Your task to perform on an android device: Go to Android settings Image 0: 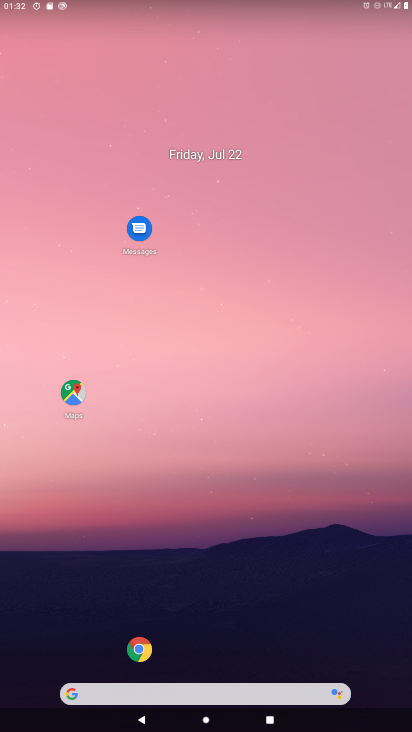
Step 0: drag from (43, 694) to (256, 103)
Your task to perform on an android device: Go to Android settings Image 1: 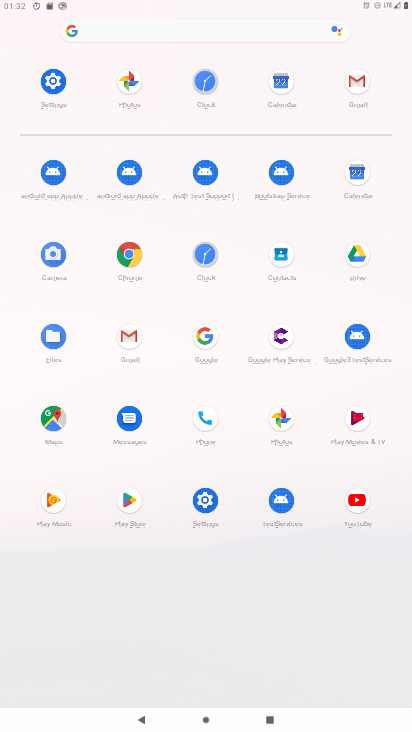
Step 1: click (210, 504)
Your task to perform on an android device: Go to Android settings Image 2: 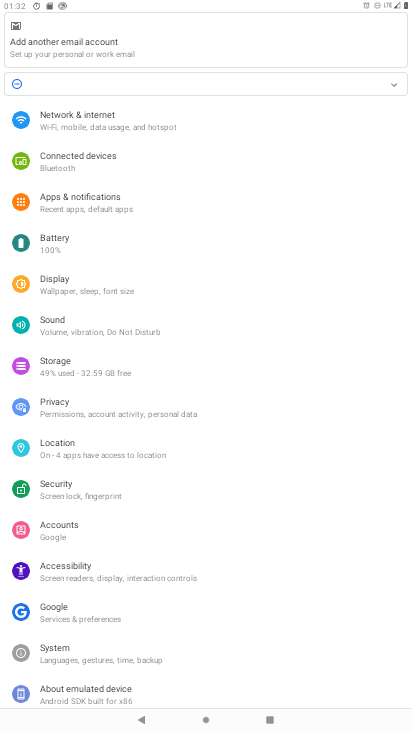
Step 2: click (70, 690)
Your task to perform on an android device: Go to Android settings Image 3: 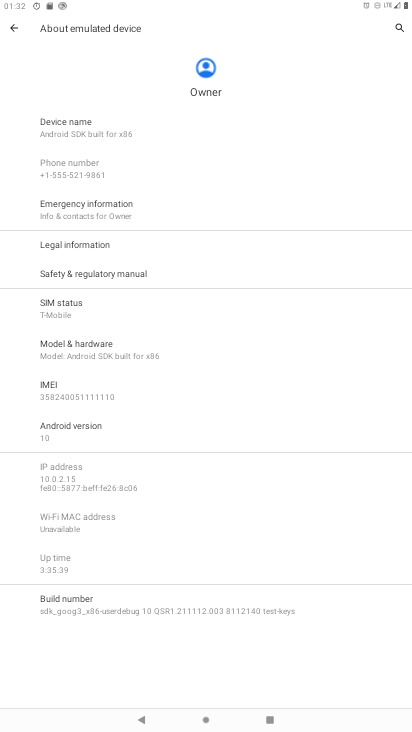
Step 3: click (84, 431)
Your task to perform on an android device: Go to Android settings Image 4: 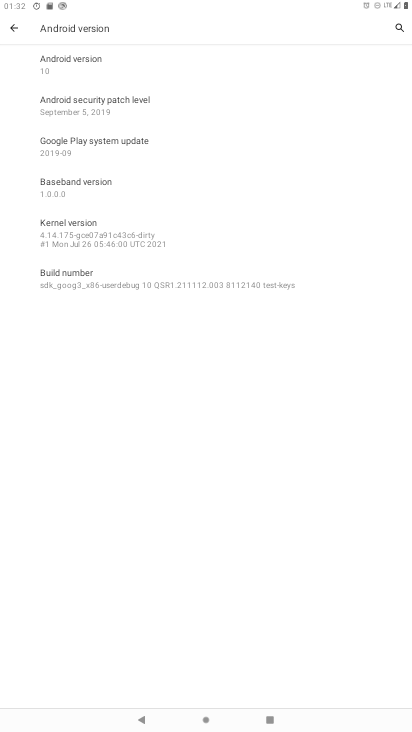
Step 4: task complete